Your task to perform on an android device: Go to ESPN.com Image 0: 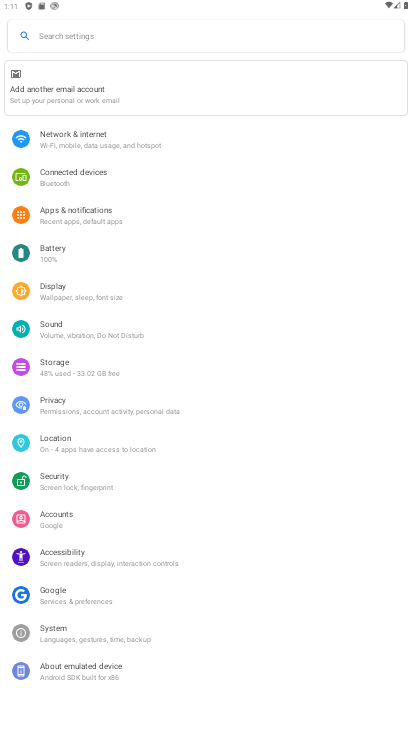
Step 0: press home button
Your task to perform on an android device: Go to ESPN.com Image 1: 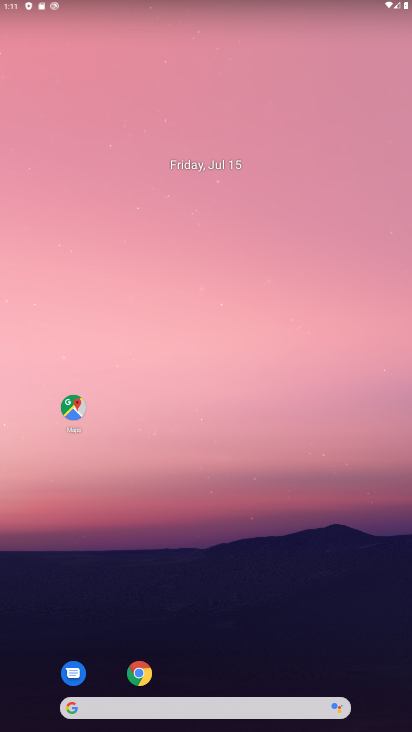
Step 1: drag from (196, 627) to (223, 112)
Your task to perform on an android device: Go to ESPN.com Image 2: 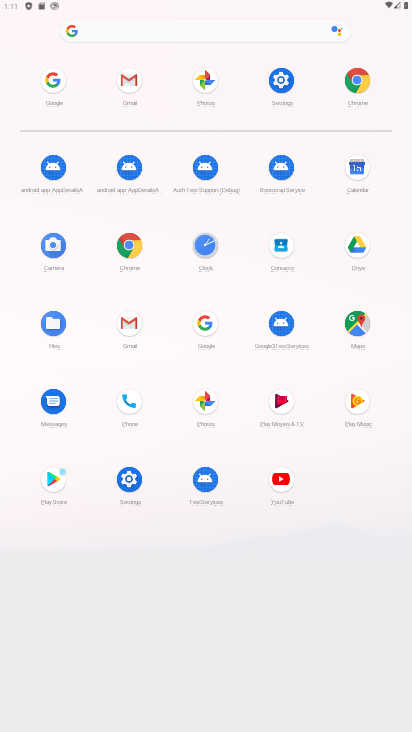
Step 2: click (129, 254)
Your task to perform on an android device: Go to ESPN.com Image 3: 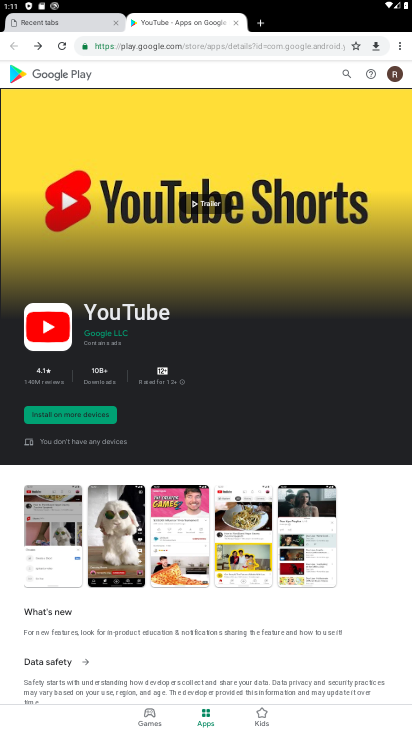
Step 3: click (261, 25)
Your task to perform on an android device: Go to ESPN.com Image 4: 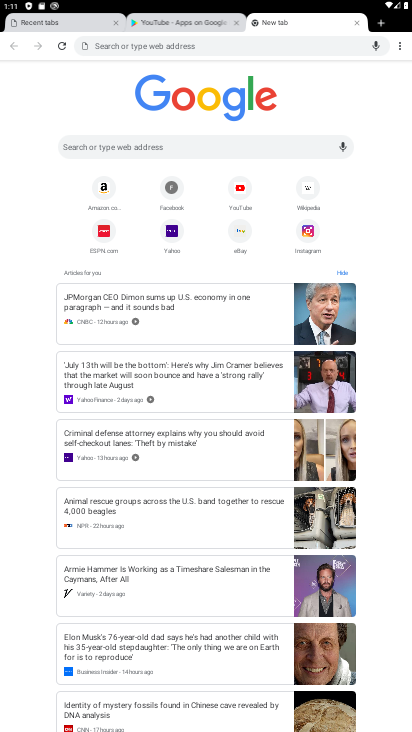
Step 4: click (97, 242)
Your task to perform on an android device: Go to ESPN.com Image 5: 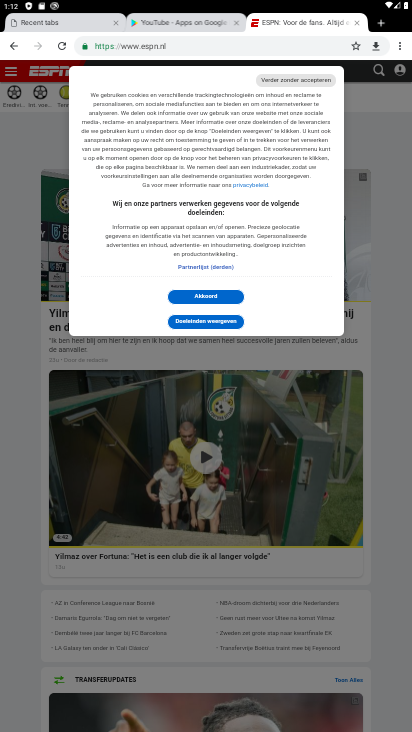
Step 5: task complete